Your task to perform on an android device: Search for vegetarian restaurants on Maps Image 0: 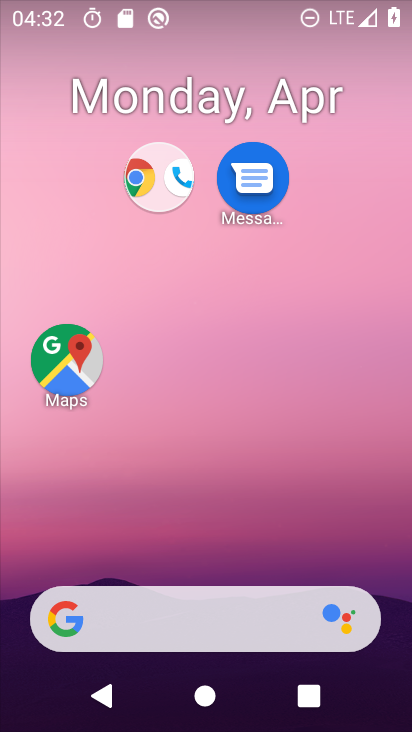
Step 0: drag from (281, 603) to (301, 42)
Your task to perform on an android device: Search for vegetarian restaurants on Maps Image 1: 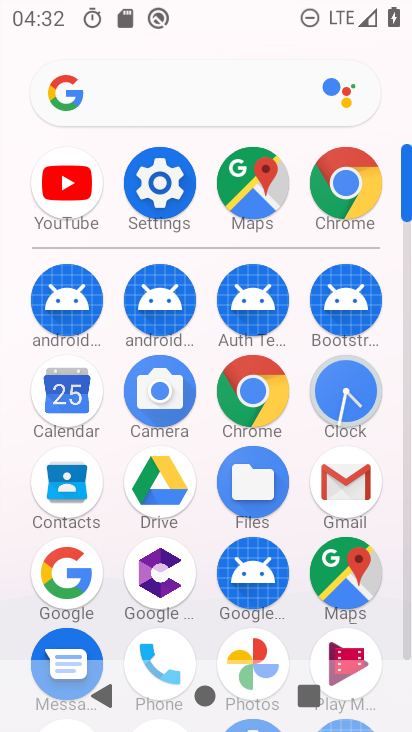
Step 1: drag from (298, 600) to (284, 93)
Your task to perform on an android device: Search for vegetarian restaurants on Maps Image 2: 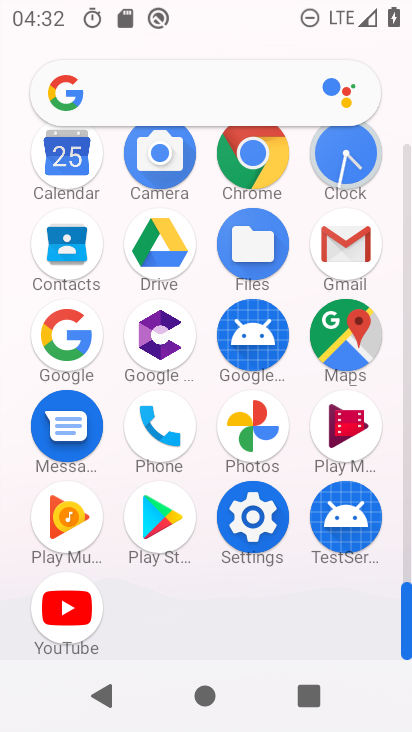
Step 2: click (340, 321)
Your task to perform on an android device: Search for vegetarian restaurants on Maps Image 3: 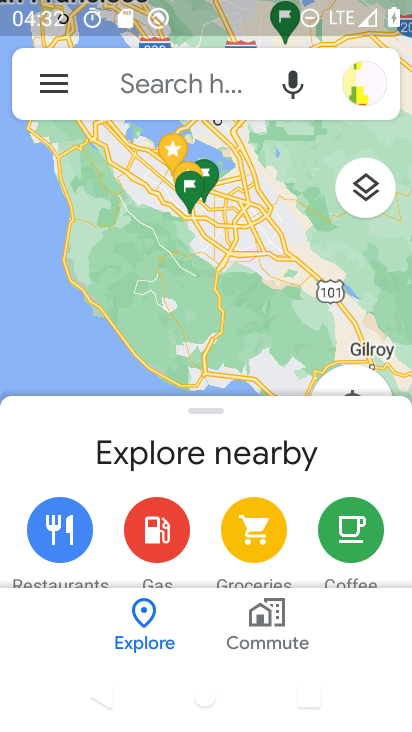
Step 3: click (224, 79)
Your task to perform on an android device: Search for vegetarian restaurants on Maps Image 4: 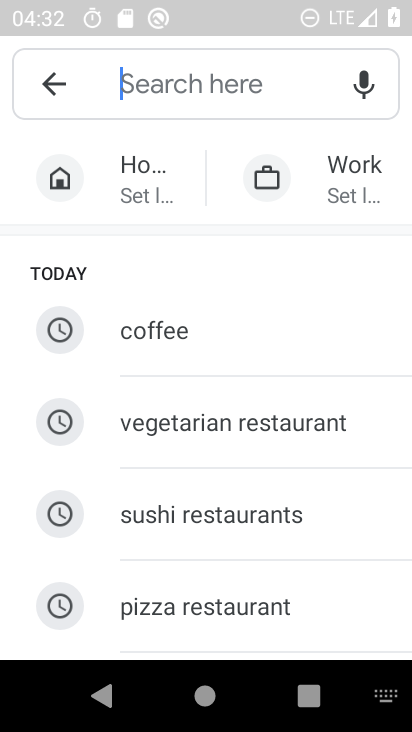
Step 4: type "vegeta"
Your task to perform on an android device: Search for vegetarian restaurants on Maps Image 5: 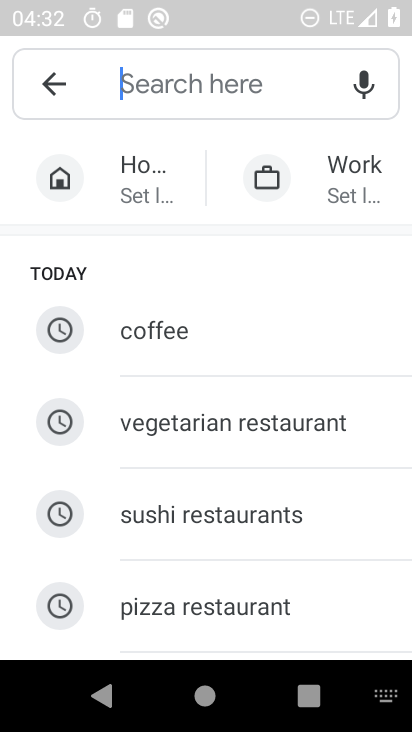
Step 5: click (276, 428)
Your task to perform on an android device: Search for vegetarian restaurants on Maps Image 6: 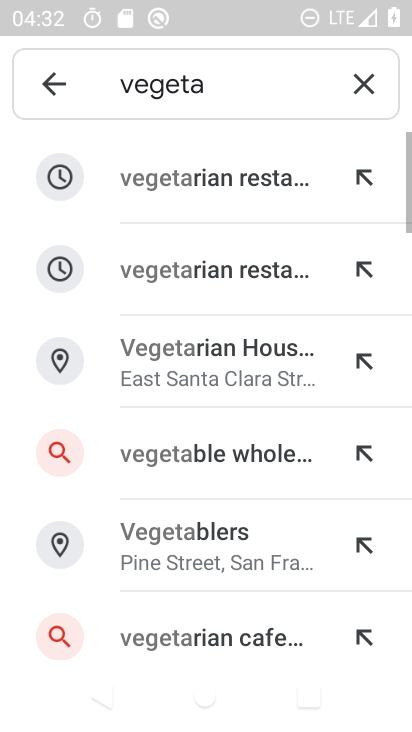
Step 6: click (319, 216)
Your task to perform on an android device: Search for vegetarian restaurants on Maps Image 7: 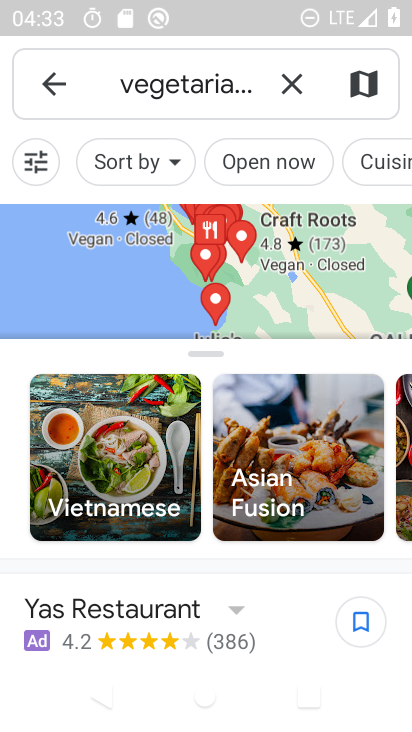
Step 7: task complete